Your task to perform on an android device: check data usage Image 0: 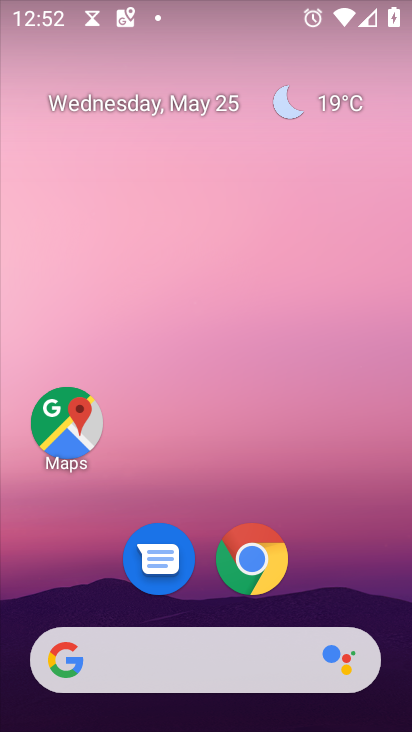
Step 0: drag from (356, 514) to (361, 85)
Your task to perform on an android device: check data usage Image 1: 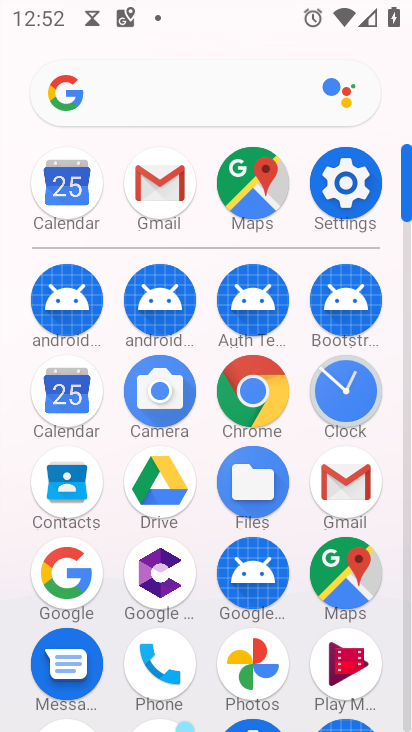
Step 1: click (340, 186)
Your task to perform on an android device: check data usage Image 2: 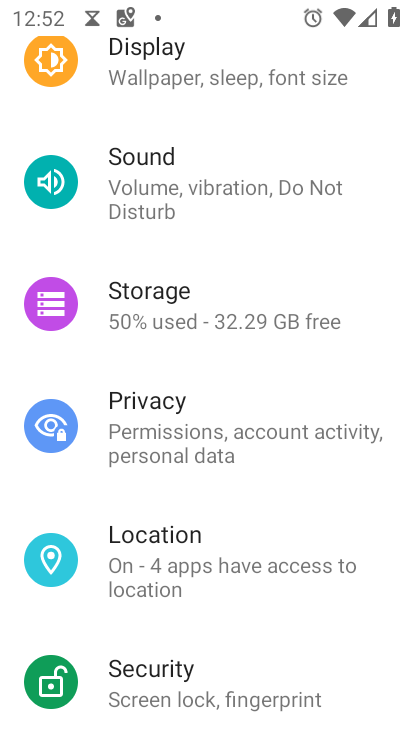
Step 2: drag from (246, 145) to (283, 659)
Your task to perform on an android device: check data usage Image 3: 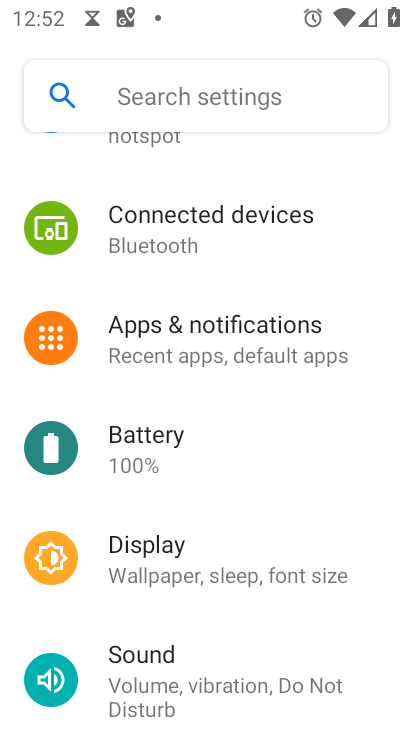
Step 3: drag from (235, 228) to (236, 627)
Your task to perform on an android device: check data usage Image 4: 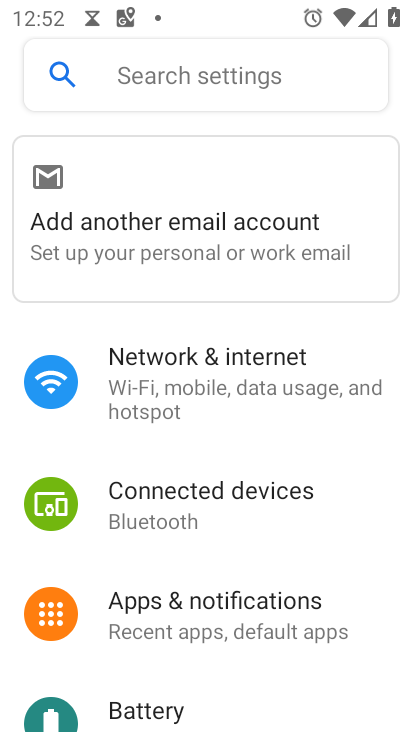
Step 4: click (211, 392)
Your task to perform on an android device: check data usage Image 5: 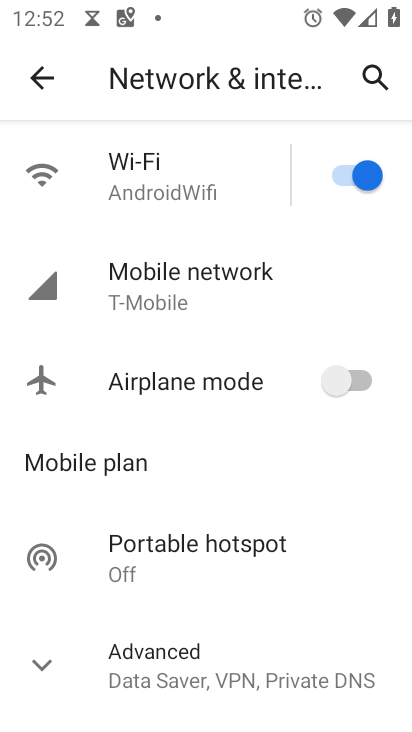
Step 5: click (167, 297)
Your task to perform on an android device: check data usage Image 6: 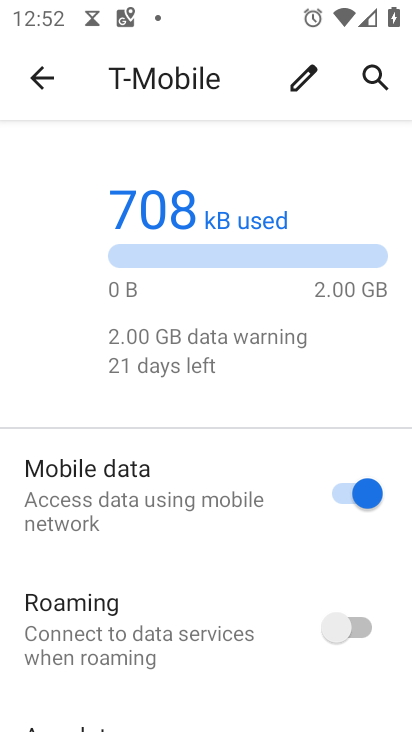
Step 6: task complete